Your task to perform on an android device: Clear the cart on costco.com. Search for "jbl flip 4" on costco.com, select the first entry, add it to the cart, then select checkout. Image 0: 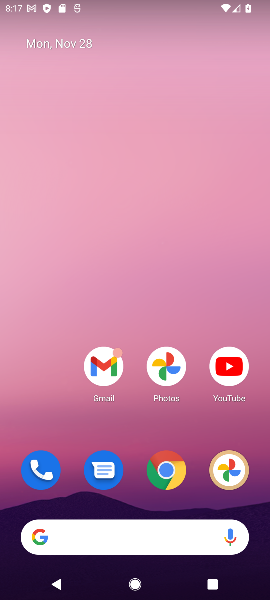
Step 0: press home button
Your task to perform on an android device: Clear the cart on costco.com. Search for "jbl flip 4" on costco.com, select the first entry, add it to the cart, then select checkout. Image 1: 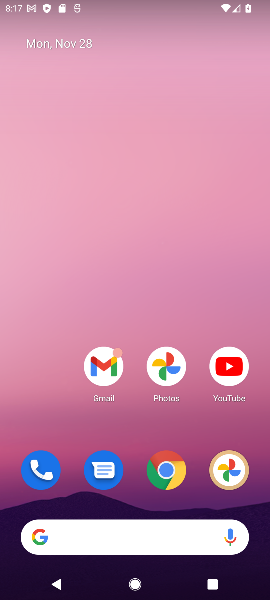
Step 1: drag from (133, 444) to (118, 231)
Your task to perform on an android device: Clear the cart on costco.com. Search for "jbl flip 4" on costco.com, select the first entry, add it to the cart, then select checkout. Image 2: 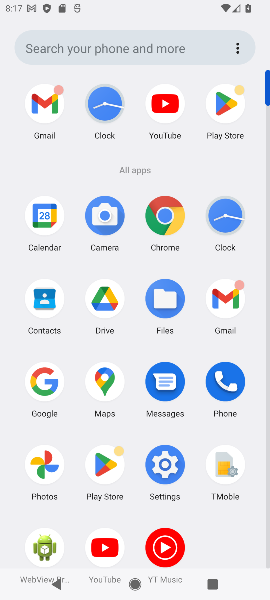
Step 2: click (41, 388)
Your task to perform on an android device: Clear the cart on costco.com. Search for "jbl flip 4" on costco.com, select the first entry, add it to the cart, then select checkout. Image 3: 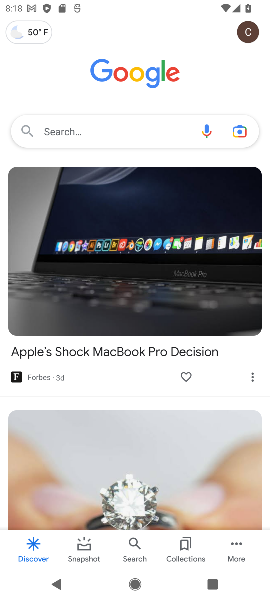
Step 3: click (110, 118)
Your task to perform on an android device: Clear the cart on costco.com. Search for "jbl flip 4" on costco.com, select the first entry, add it to the cart, then select checkout. Image 4: 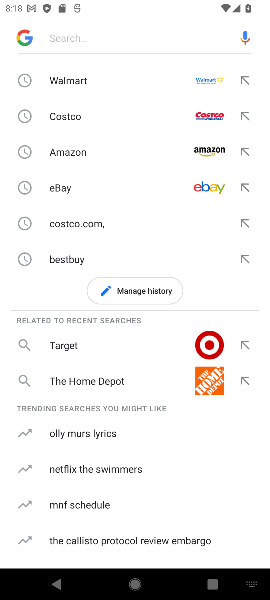
Step 4: click (90, 118)
Your task to perform on an android device: Clear the cart on costco.com. Search for "jbl flip 4" on costco.com, select the first entry, add it to the cart, then select checkout. Image 5: 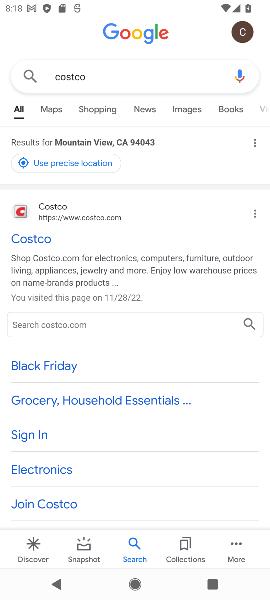
Step 5: click (32, 231)
Your task to perform on an android device: Clear the cart on costco.com. Search for "jbl flip 4" on costco.com, select the first entry, add it to the cart, then select checkout. Image 6: 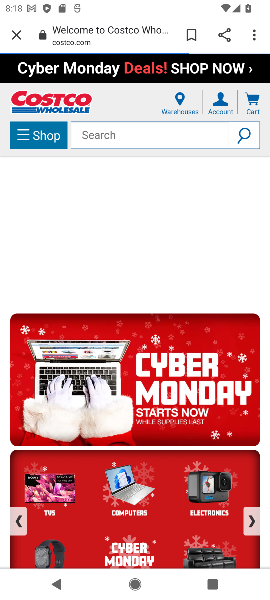
Step 6: click (140, 127)
Your task to perform on an android device: Clear the cart on costco.com. Search for "jbl flip 4" on costco.com, select the first entry, add it to the cart, then select checkout. Image 7: 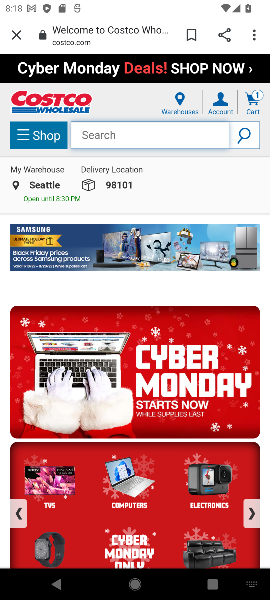
Step 7: type "jbl flip 4"
Your task to perform on an android device: Clear the cart on costco.com. Search for "jbl flip 4" on costco.com, select the first entry, add it to the cart, then select checkout. Image 8: 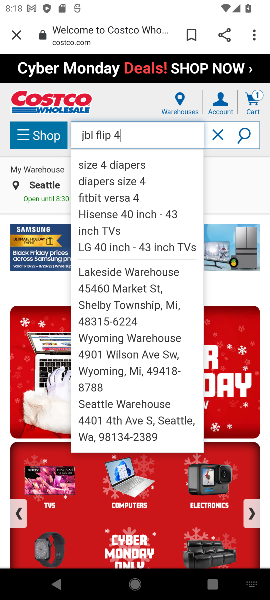
Step 8: click (243, 131)
Your task to perform on an android device: Clear the cart on costco.com. Search for "jbl flip 4" on costco.com, select the first entry, add it to the cart, then select checkout. Image 9: 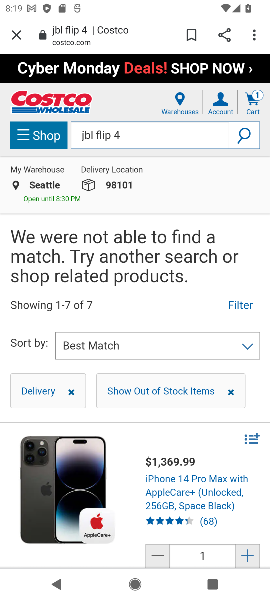
Step 9: click (251, 99)
Your task to perform on an android device: Clear the cart on costco.com. Search for "jbl flip 4" on costco.com, select the first entry, add it to the cart, then select checkout. Image 10: 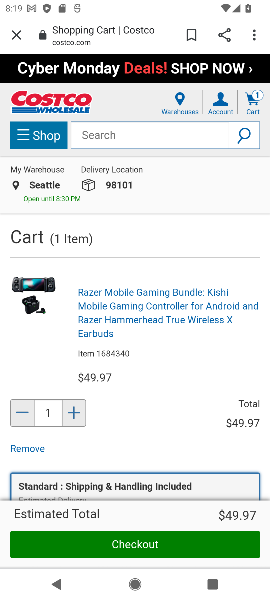
Step 10: click (124, 554)
Your task to perform on an android device: Clear the cart on costco.com. Search for "jbl flip 4" on costco.com, select the first entry, add it to the cart, then select checkout. Image 11: 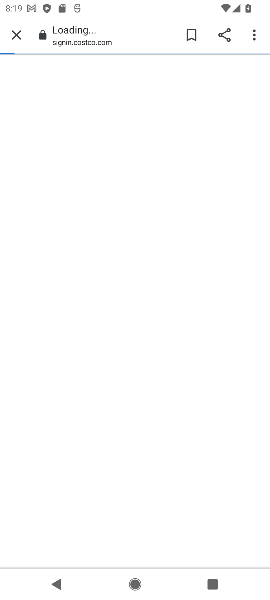
Step 11: click (134, 542)
Your task to perform on an android device: Clear the cart on costco.com. Search for "jbl flip 4" on costco.com, select the first entry, add it to the cart, then select checkout. Image 12: 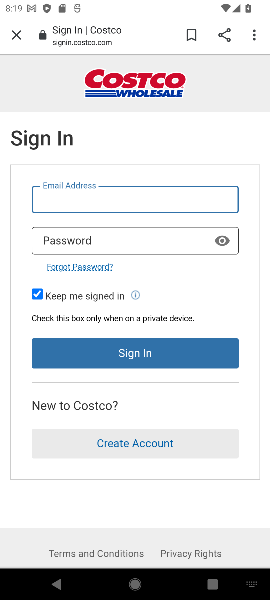
Step 12: task complete